Your task to perform on an android device: turn off picture-in-picture Image 0: 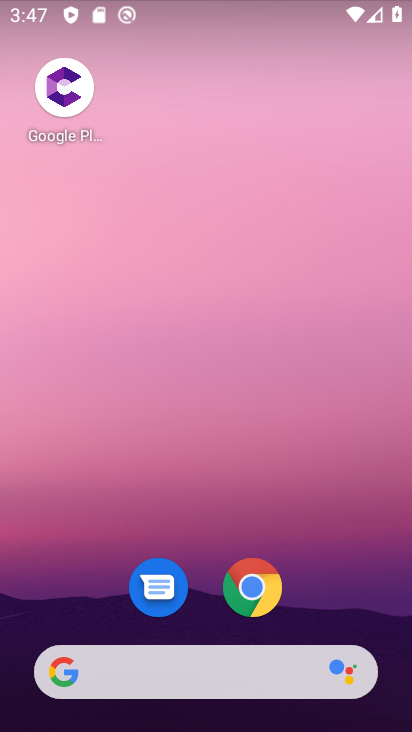
Step 0: click (260, 590)
Your task to perform on an android device: turn off picture-in-picture Image 1: 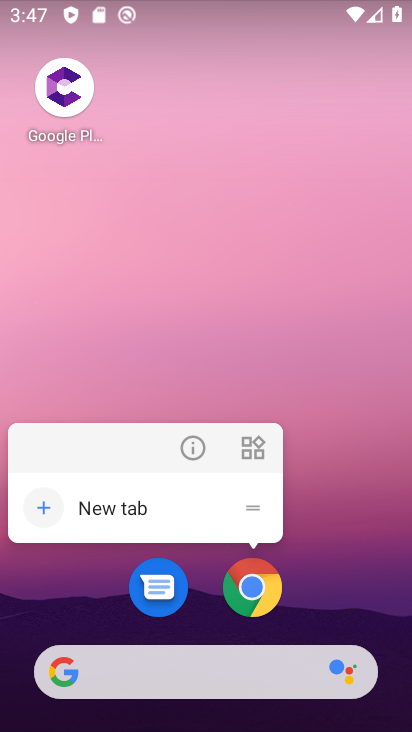
Step 1: click (197, 447)
Your task to perform on an android device: turn off picture-in-picture Image 2: 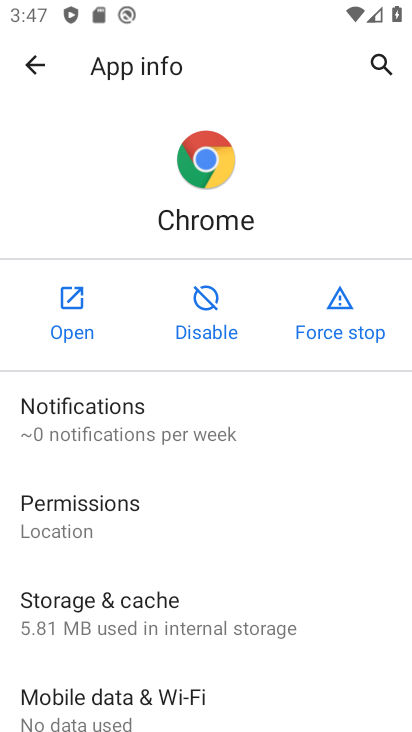
Step 2: drag from (255, 637) to (270, 319)
Your task to perform on an android device: turn off picture-in-picture Image 3: 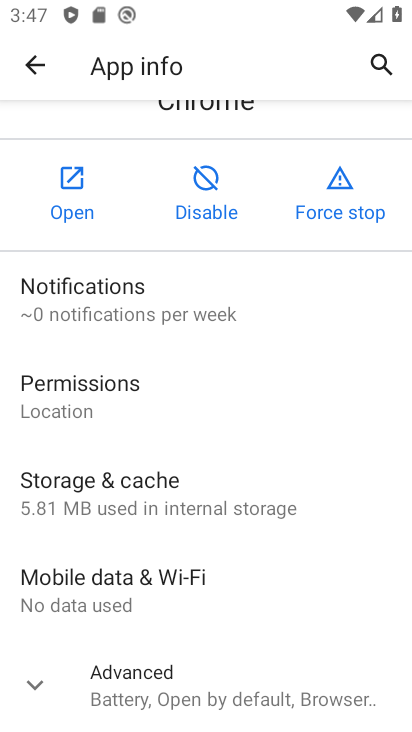
Step 3: click (234, 690)
Your task to perform on an android device: turn off picture-in-picture Image 4: 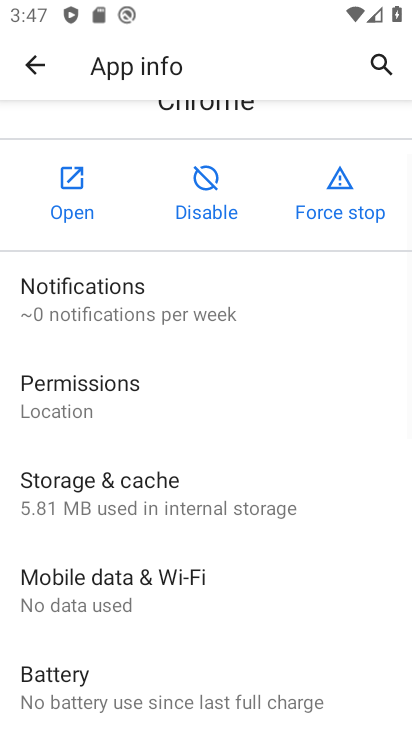
Step 4: drag from (234, 685) to (261, 343)
Your task to perform on an android device: turn off picture-in-picture Image 5: 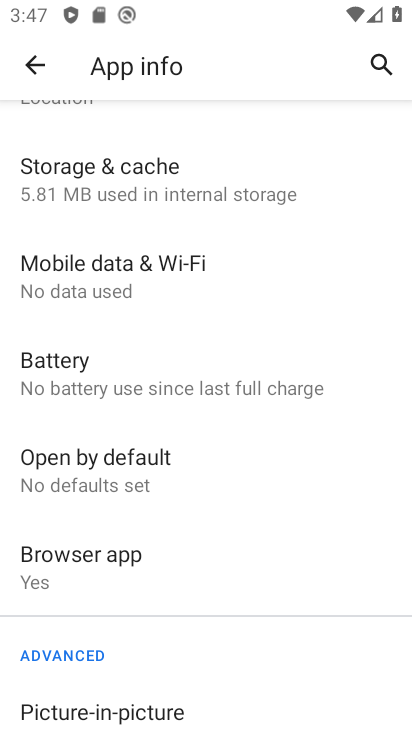
Step 5: drag from (284, 619) to (279, 422)
Your task to perform on an android device: turn off picture-in-picture Image 6: 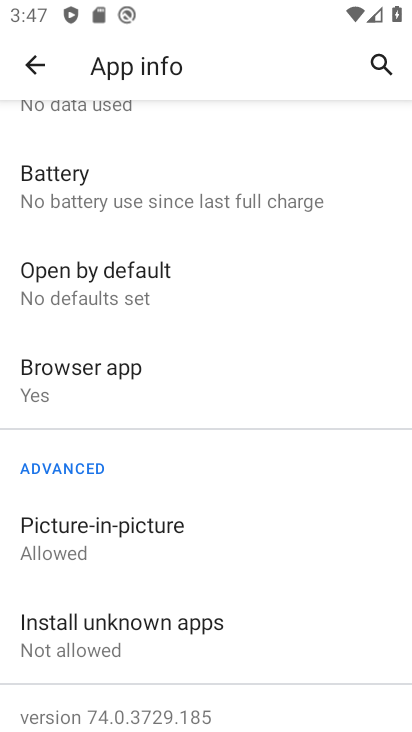
Step 6: drag from (252, 635) to (272, 430)
Your task to perform on an android device: turn off picture-in-picture Image 7: 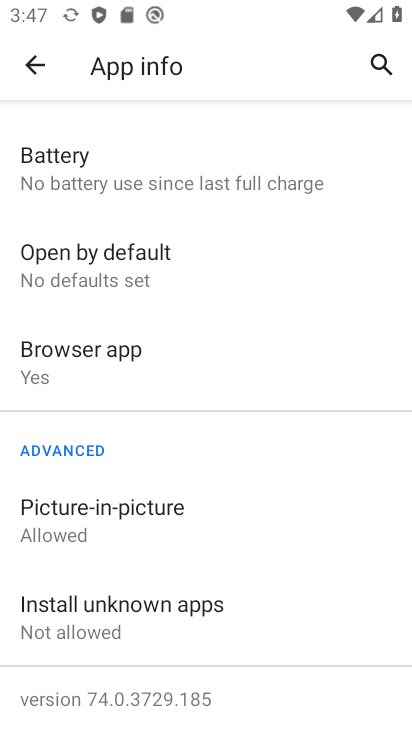
Step 7: click (240, 534)
Your task to perform on an android device: turn off picture-in-picture Image 8: 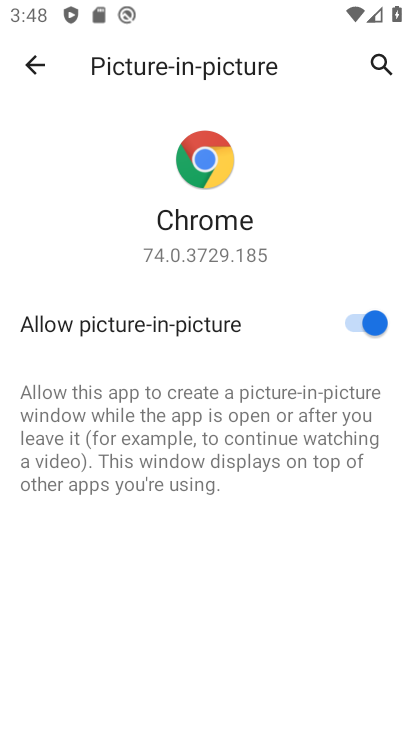
Step 8: click (378, 336)
Your task to perform on an android device: turn off picture-in-picture Image 9: 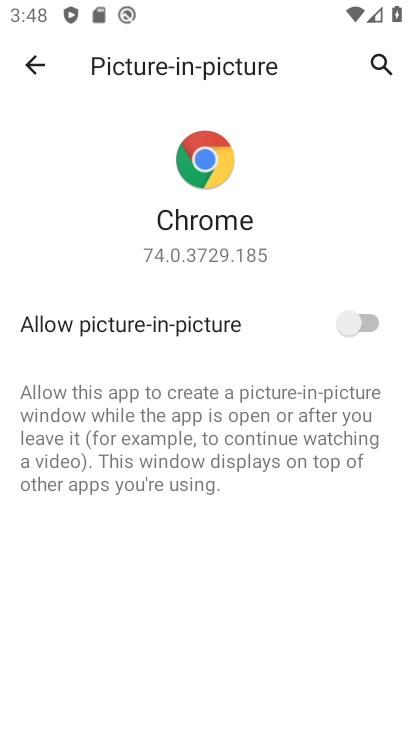
Step 9: task complete